Your task to perform on an android device: Search for vegetarian restaurants on Maps Image 0: 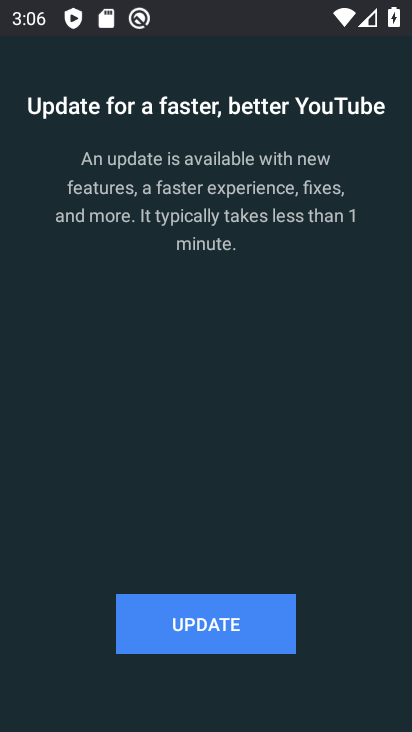
Step 0: press home button
Your task to perform on an android device: Search for vegetarian restaurants on Maps Image 1: 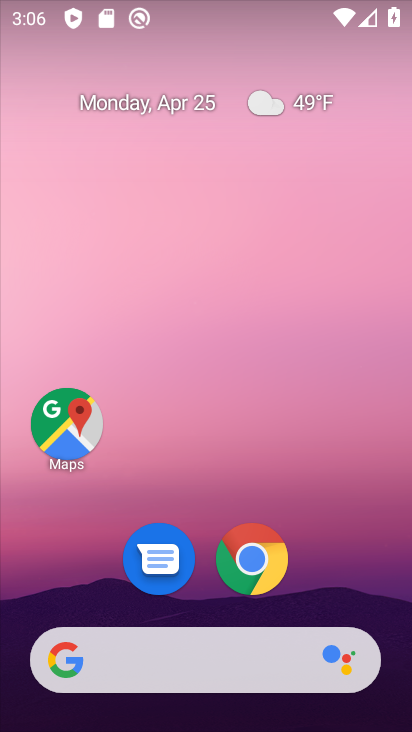
Step 1: click (54, 429)
Your task to perform on an android device: Search for vegetarian restaurants on Maps Image 2: 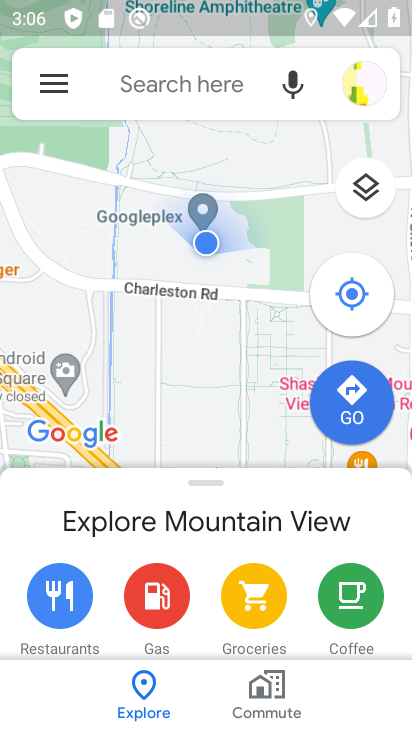
Step 2: click (185, 82)
Your task to perform on an android device: Search for vegetarian restaurants on Maps Image 3: 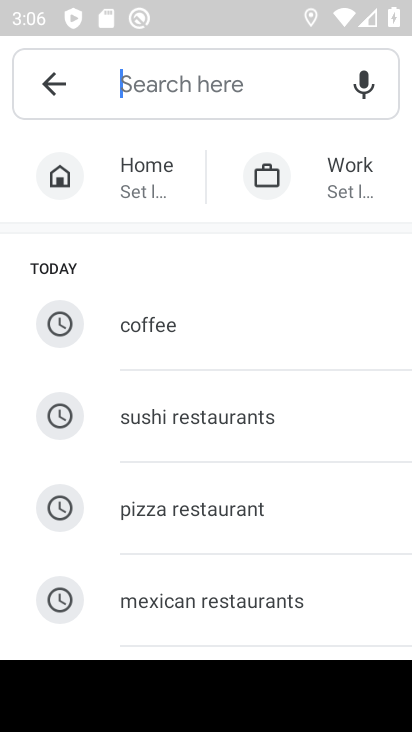
Step 3: drag from (254, 531) to (290, 225)
Your task to perform on an android device: Search for vegetarian restaurants on Maps Image 4: 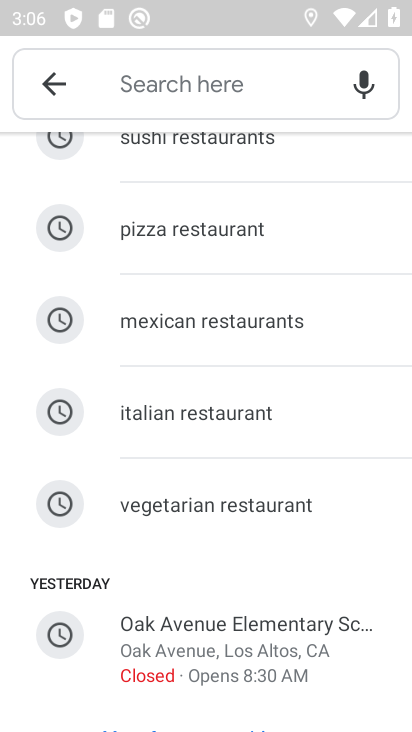
Step 4: click (272, 495)
Your task to perform on an android device: Search for vegetarian restaurants on Maps Image 5: 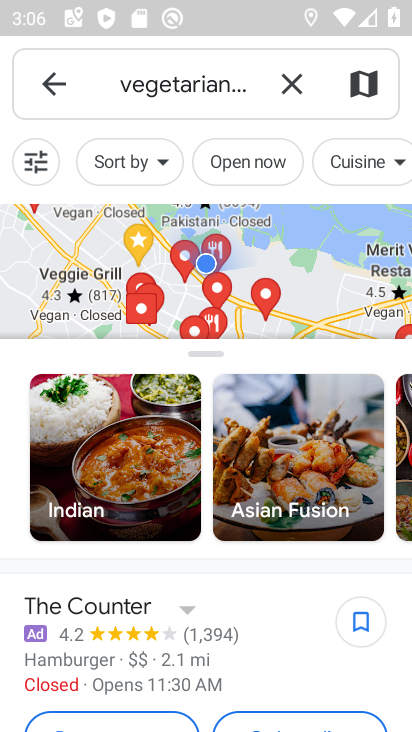
Step 5: task complete